Your task to perform on an android device: Open Google Maps and go to "Timeline" Image 0: 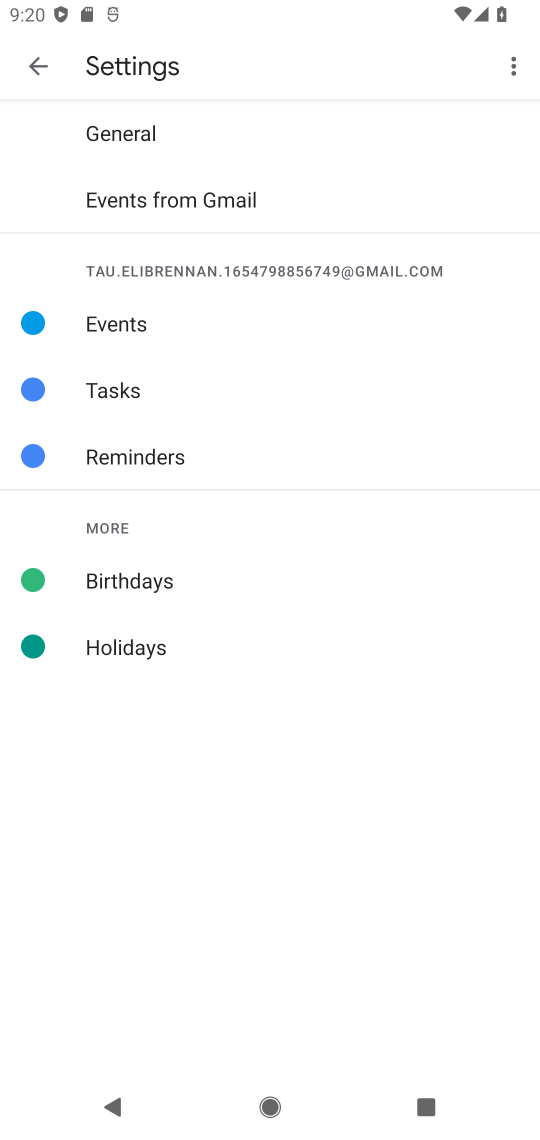
Step 0: press back button
Your task to perform on an android device: Open Google Maps and go to "Timeline" Image 1: 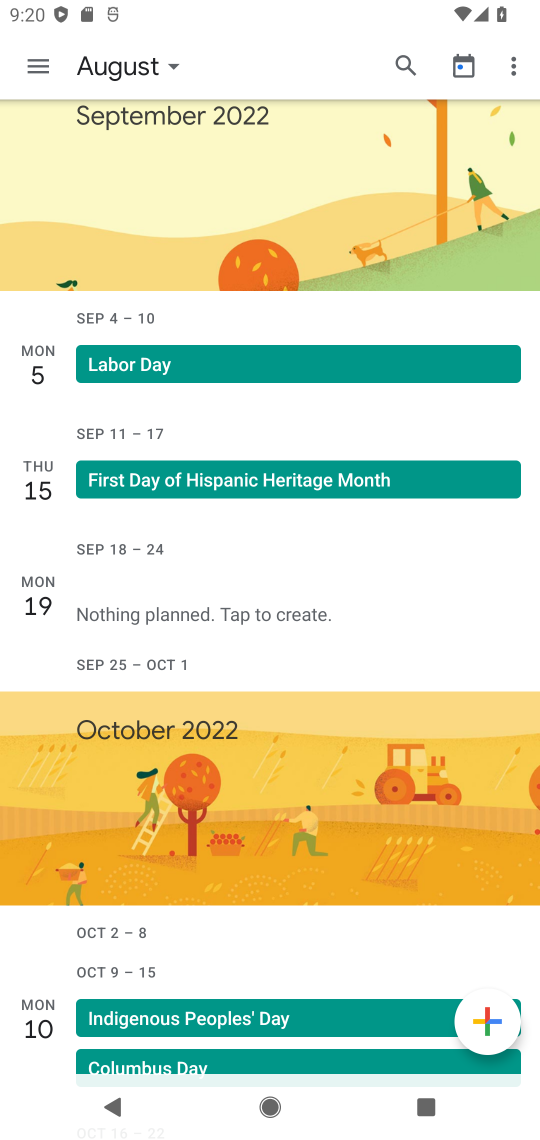
Step 1: press back button
Your task to perform on an android device: Open Google Maps and go to "Timeline" Image 2: 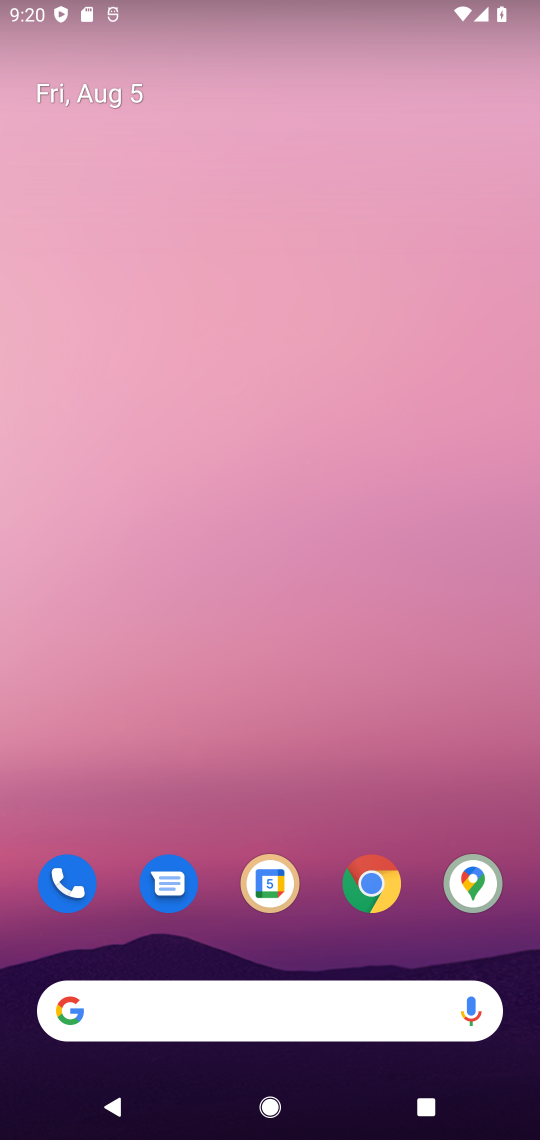
Step 2: click (478, 879)
Your task to perform on an android device: Open Google Maps and go to "Timeline" Image 3: 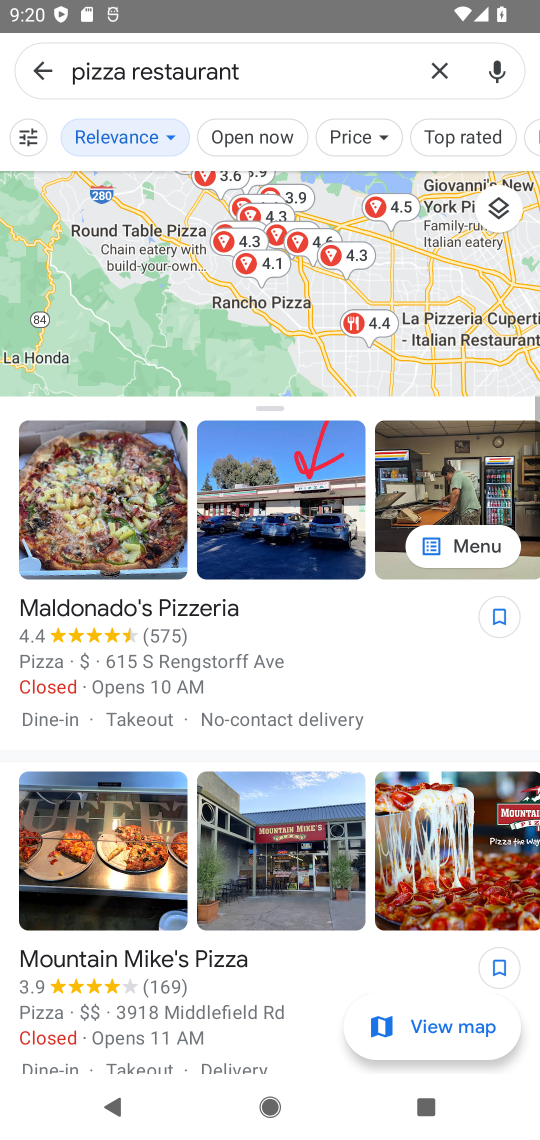
Step 3: click (24, 61)
Your task to perform on an android device: Open Google Maps and go to "Timeline" Image 4: 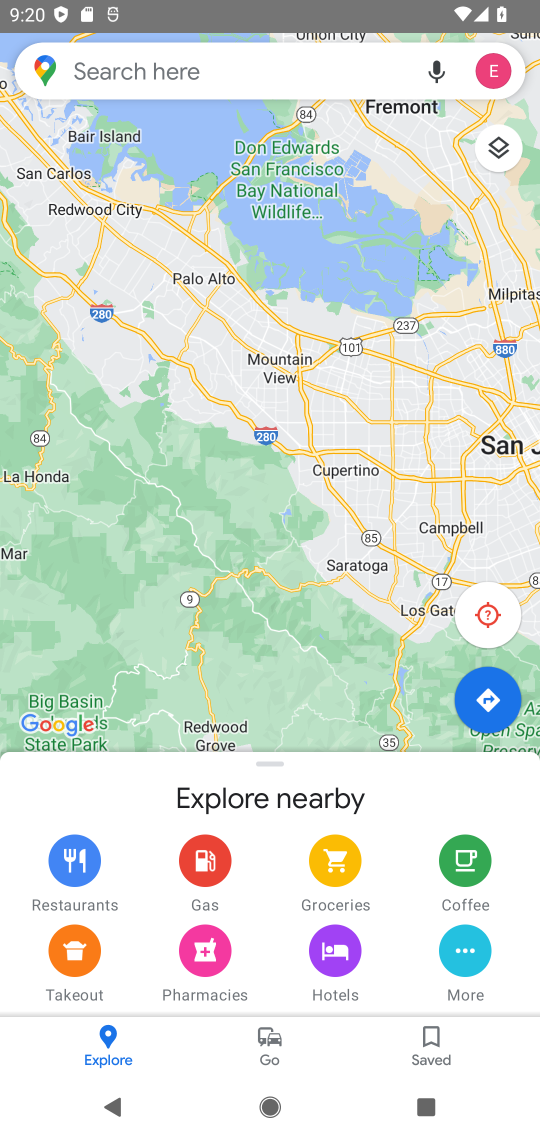
Step 4: click (496, 76)
Your task to perform on an android device: Open Google Maps and go to "Timeline" Image 5: 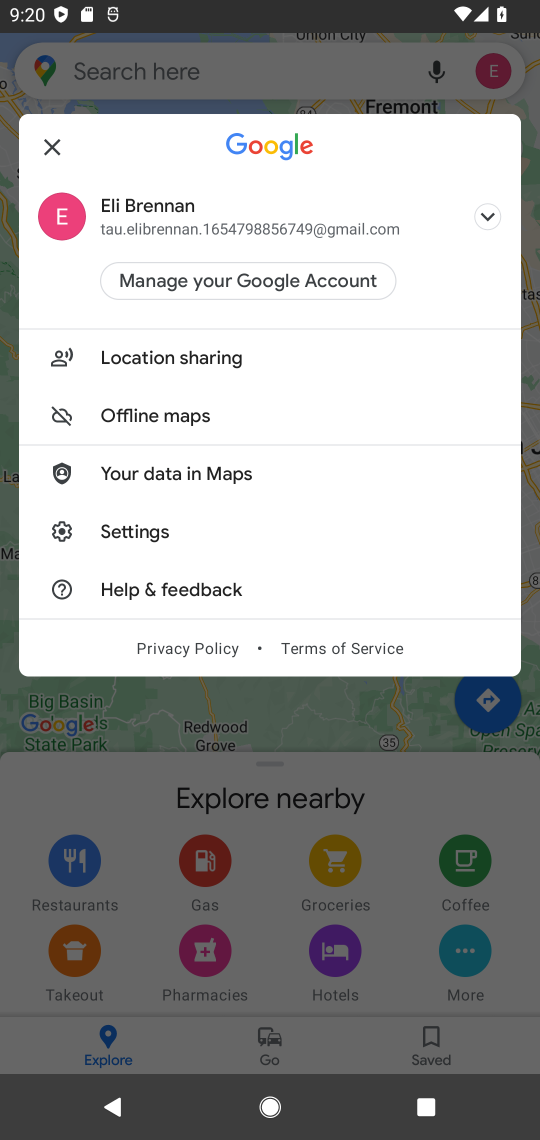
Step 5: task complete